Your task to perform on an android device: clear history in the chrome app Image 0: 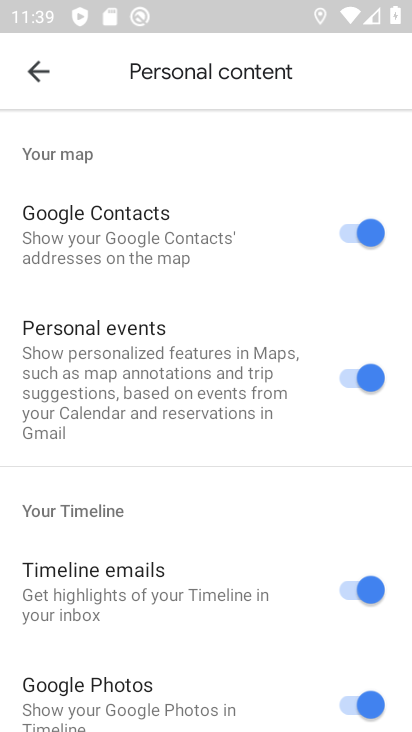
Step 0: press home button
Your task to perform on an android device: clear history in the chrome app Image 1: 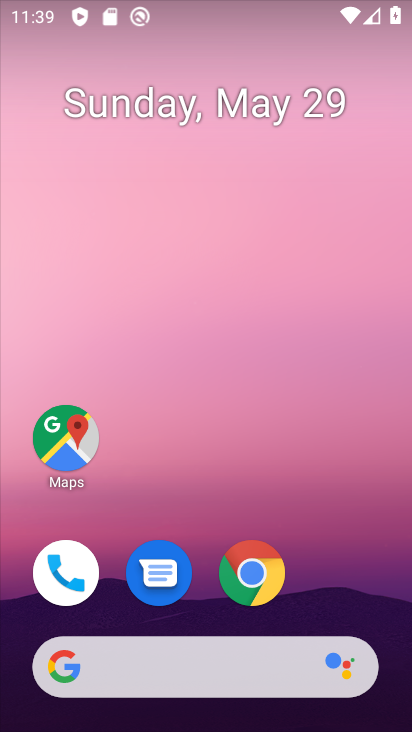
Step 1: click (275, 573)
Your task to perform on an android device: clear history in the chrome app Image 2: 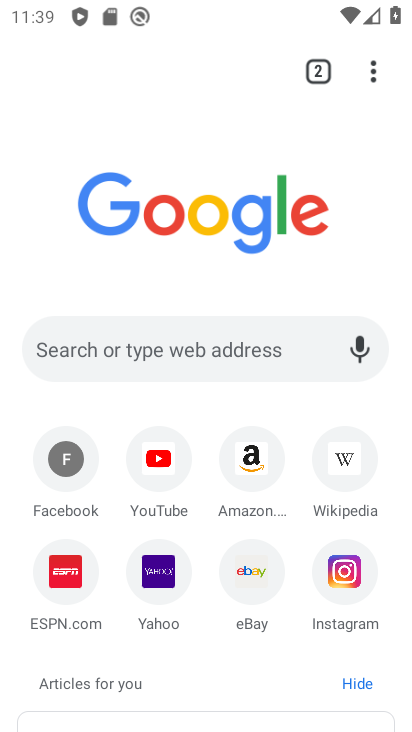
Step 2: task complete